Your task to perform on an android device: Open Yahoo.com Image 0: 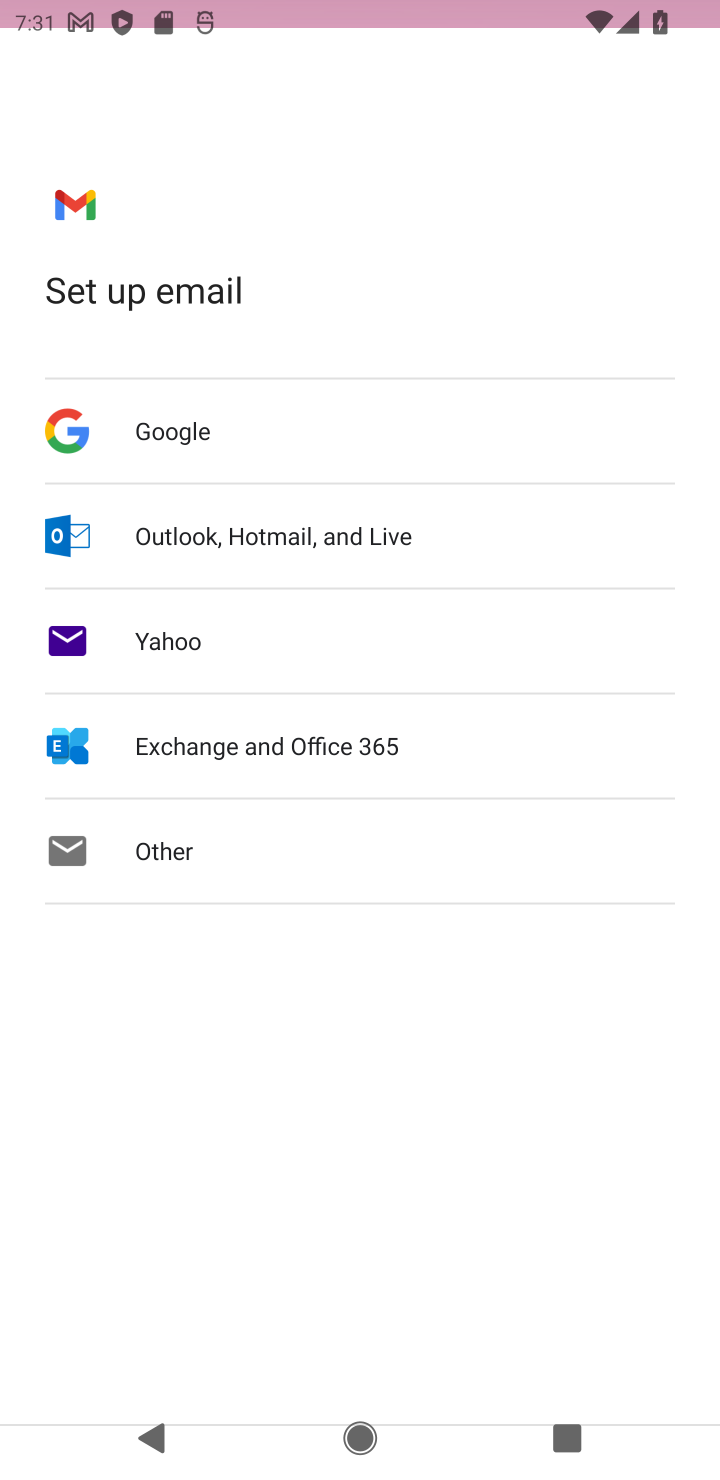
Step 0: press home button
Your task to perform on an android device: Open Yahoo.com Image 1: 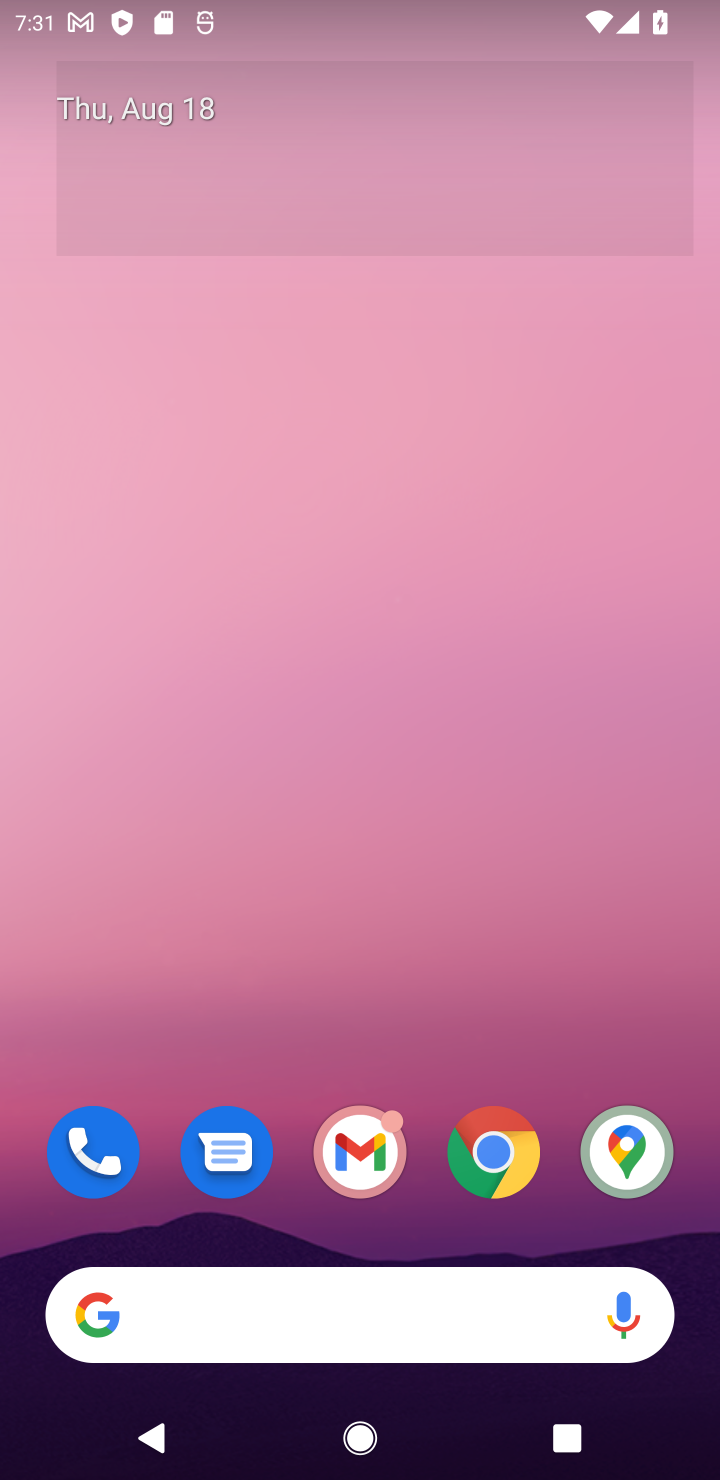
Step 1: click (88, 1303)
Your task to perform on an android device: Open Yahoo.com Image 2: 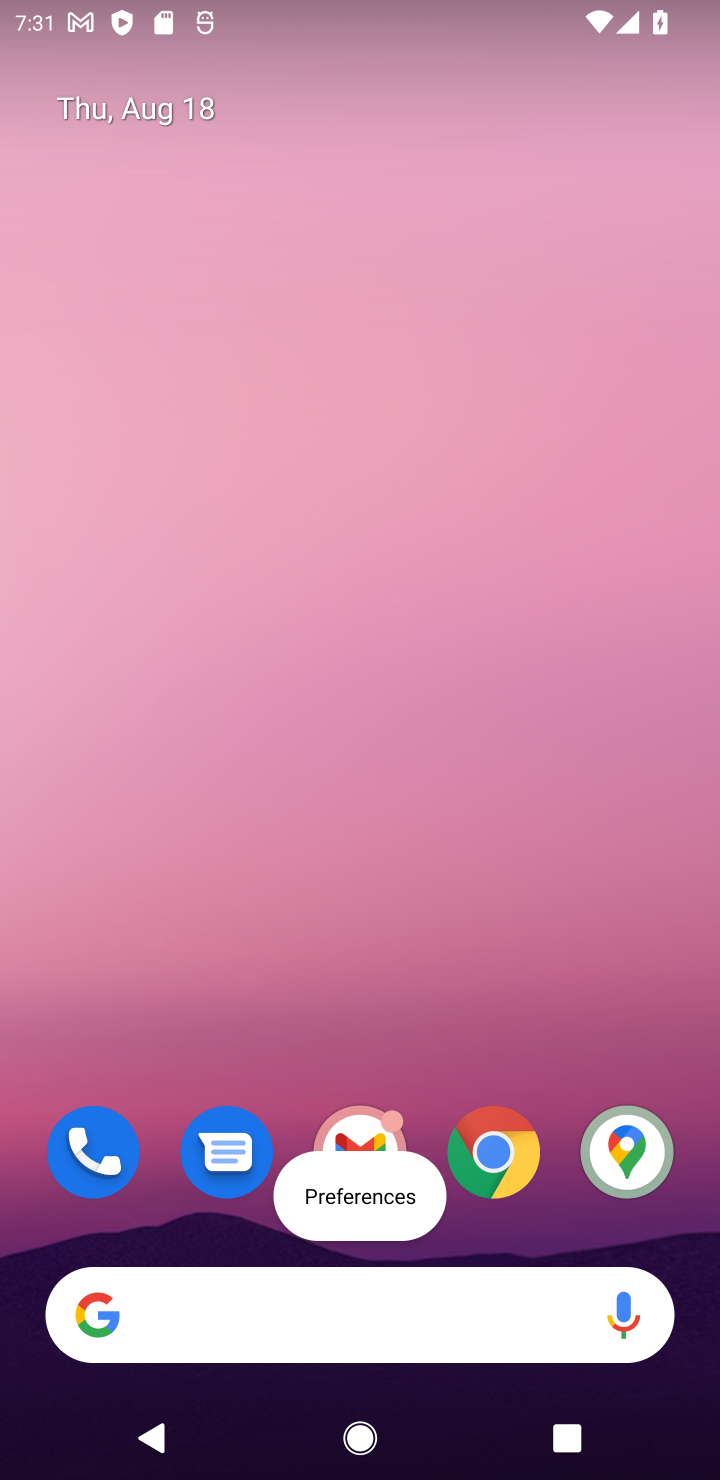
Step 2: click (83, 1314)
Your task to perform on an android device: Open Yahoo.com Image 3: 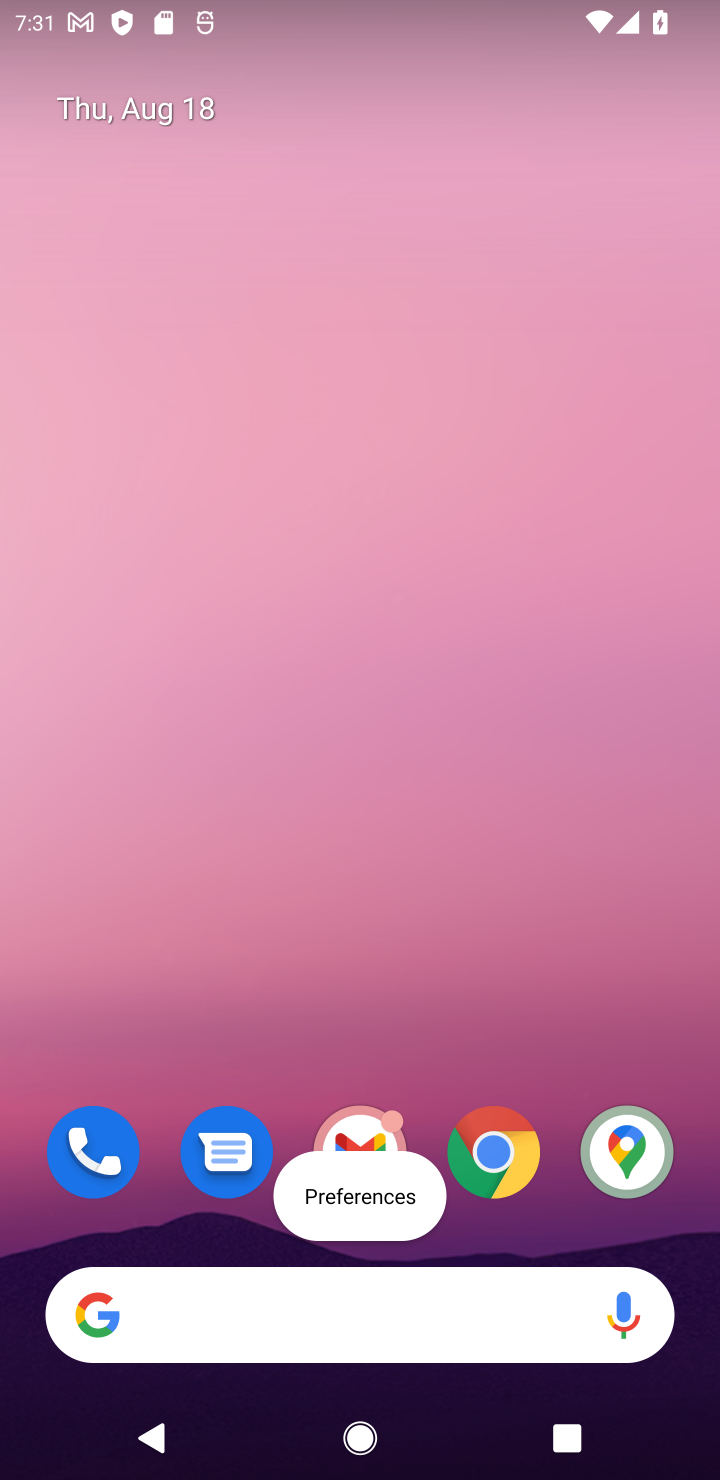
Step 3: click (93, 1319)
Your task to perform on an android device: Open Yahoo.com Image 4: 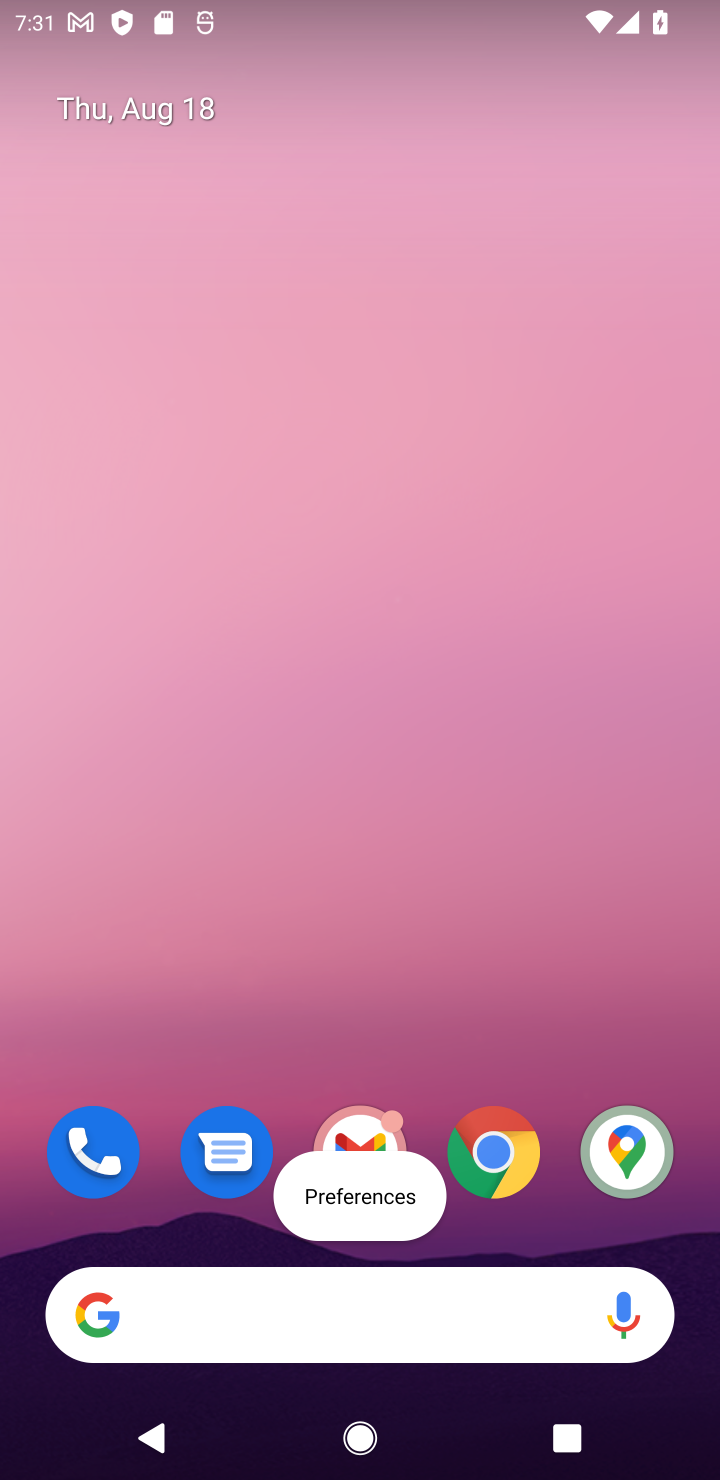
Step 4: click (95, 1322)
Your task to perform on an android device: Open Yahoo.com Image 5: 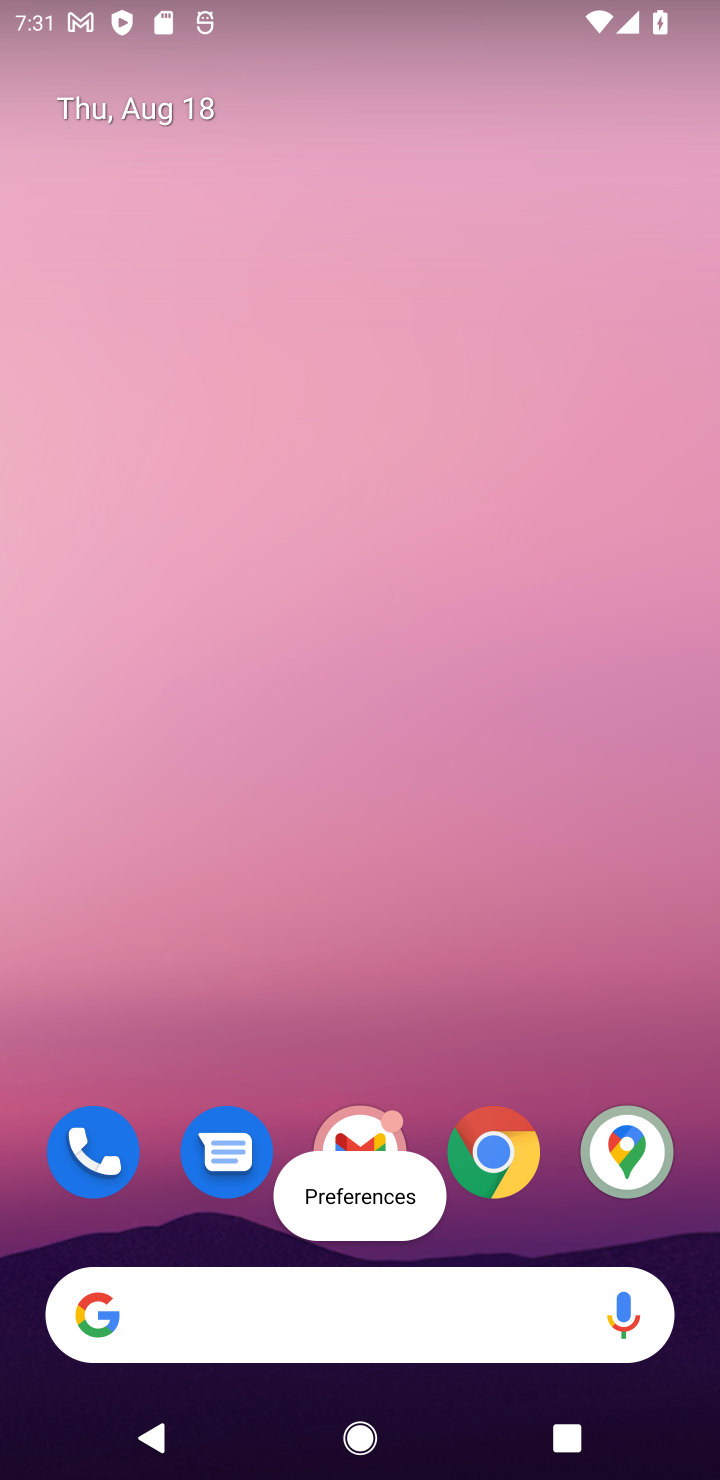
Step 5: click (95, 1321)
Your task to perform on an android device: Open Yahoo.com Image 6: 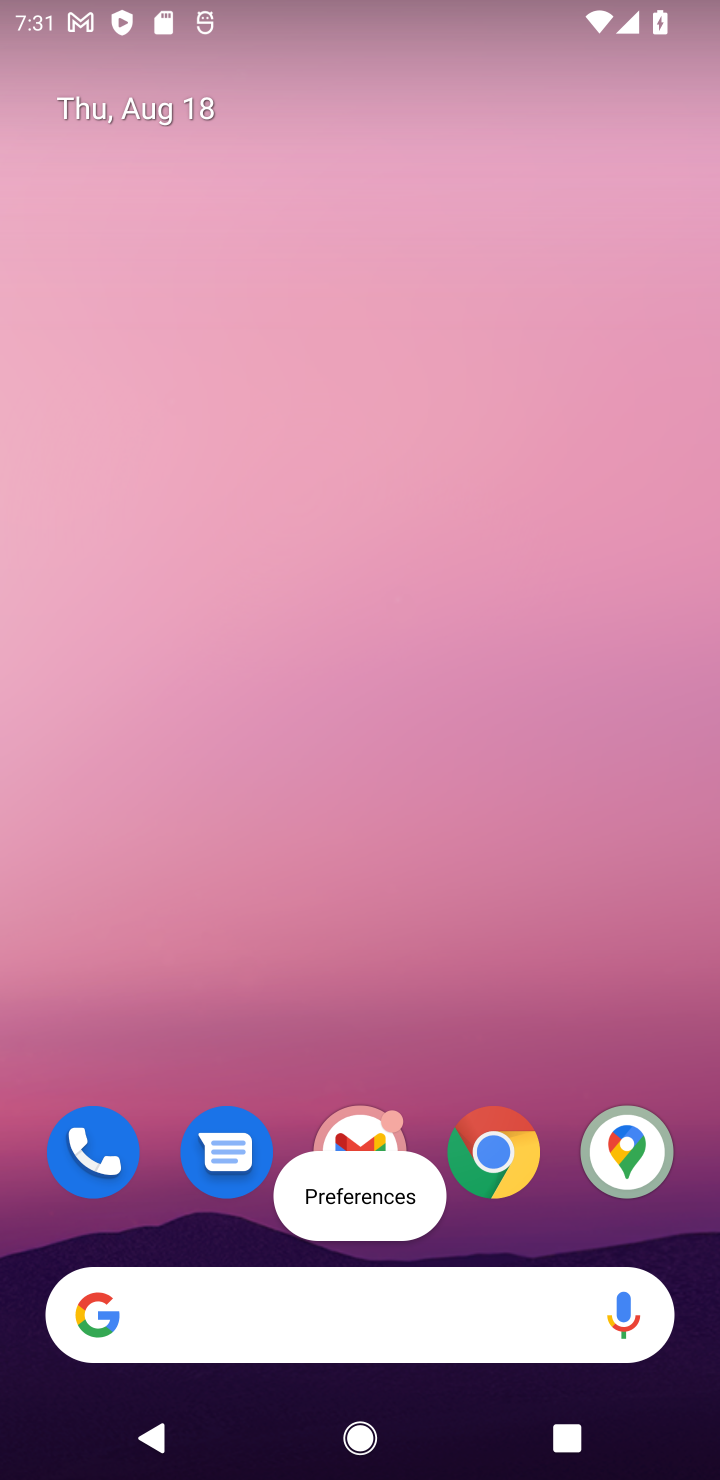
Step 6: click (95, 1316)
Your task to perform on an android device: Open Yahoo.com Image 7: 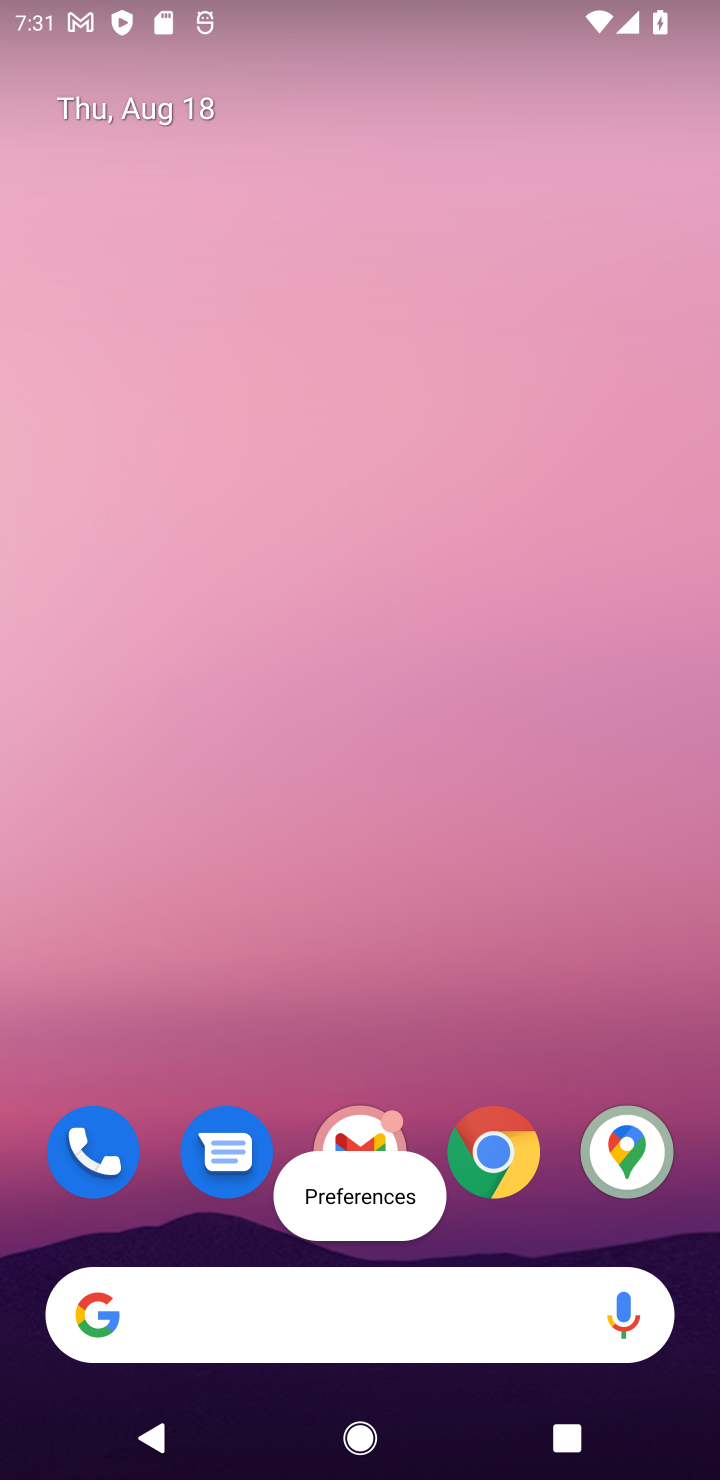
Step 7: click (95, 1316)
Your task to perform on an android device: Open Yahoo.com Image 8: 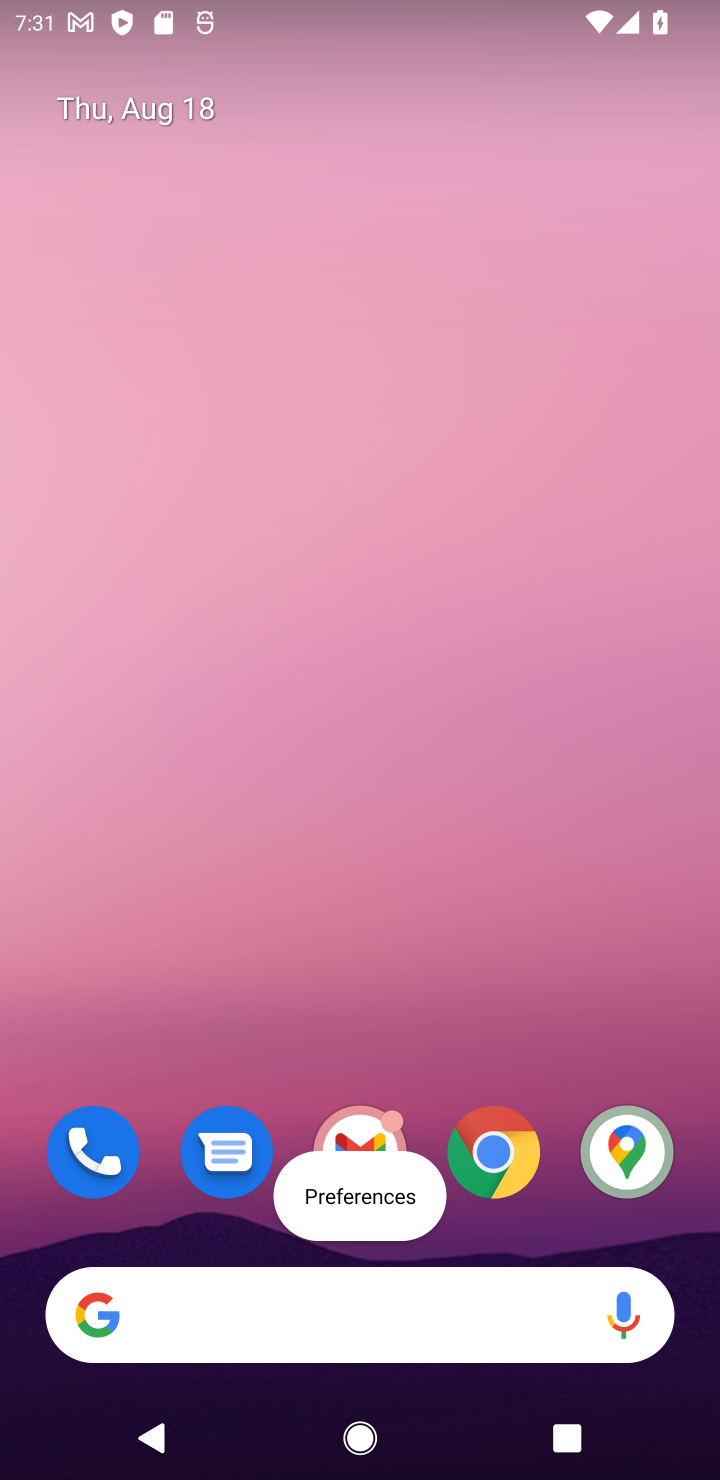
Step 8: click (101, 1316)
Your task to perform on an android device: Open Yahoo.com Image 9: 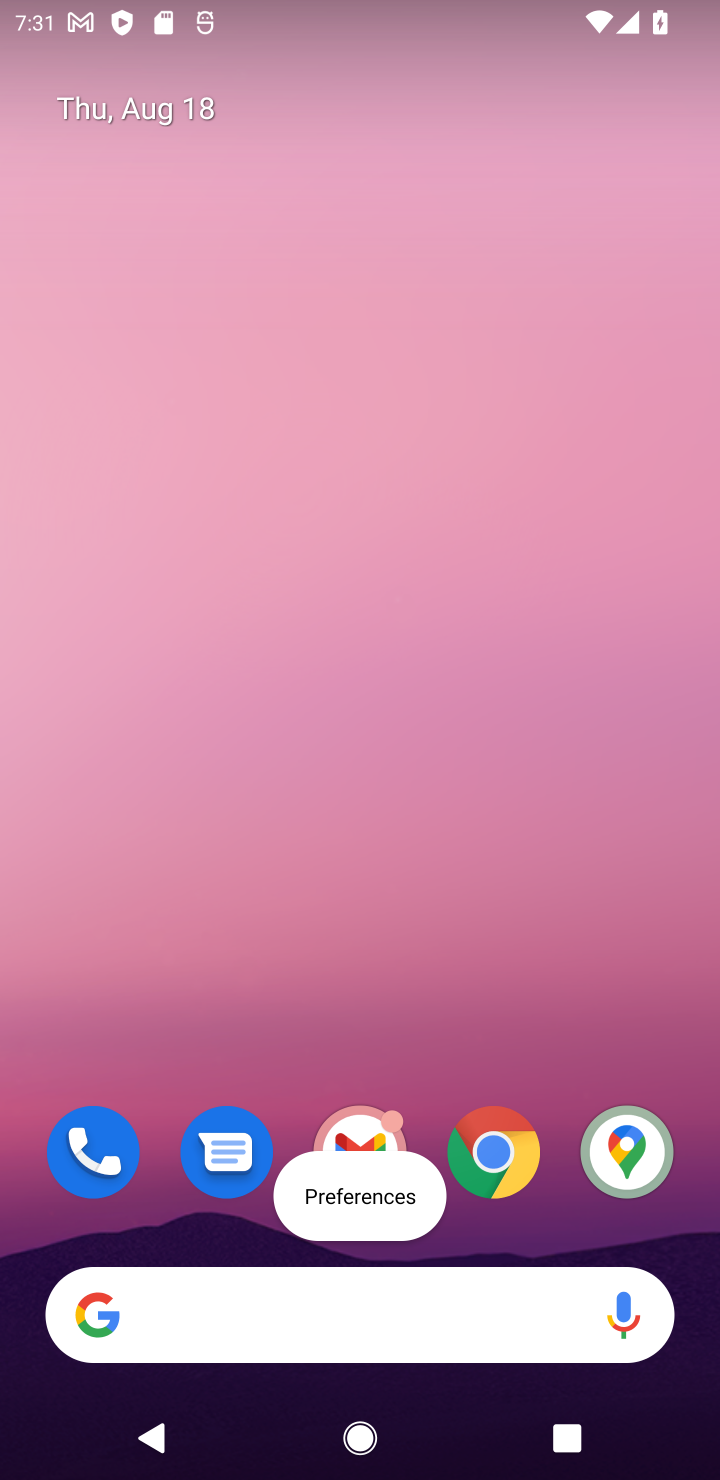
Step 9: click (91, 1322)
Your task to perform on an android device: Open Yahoo.com Image 10: 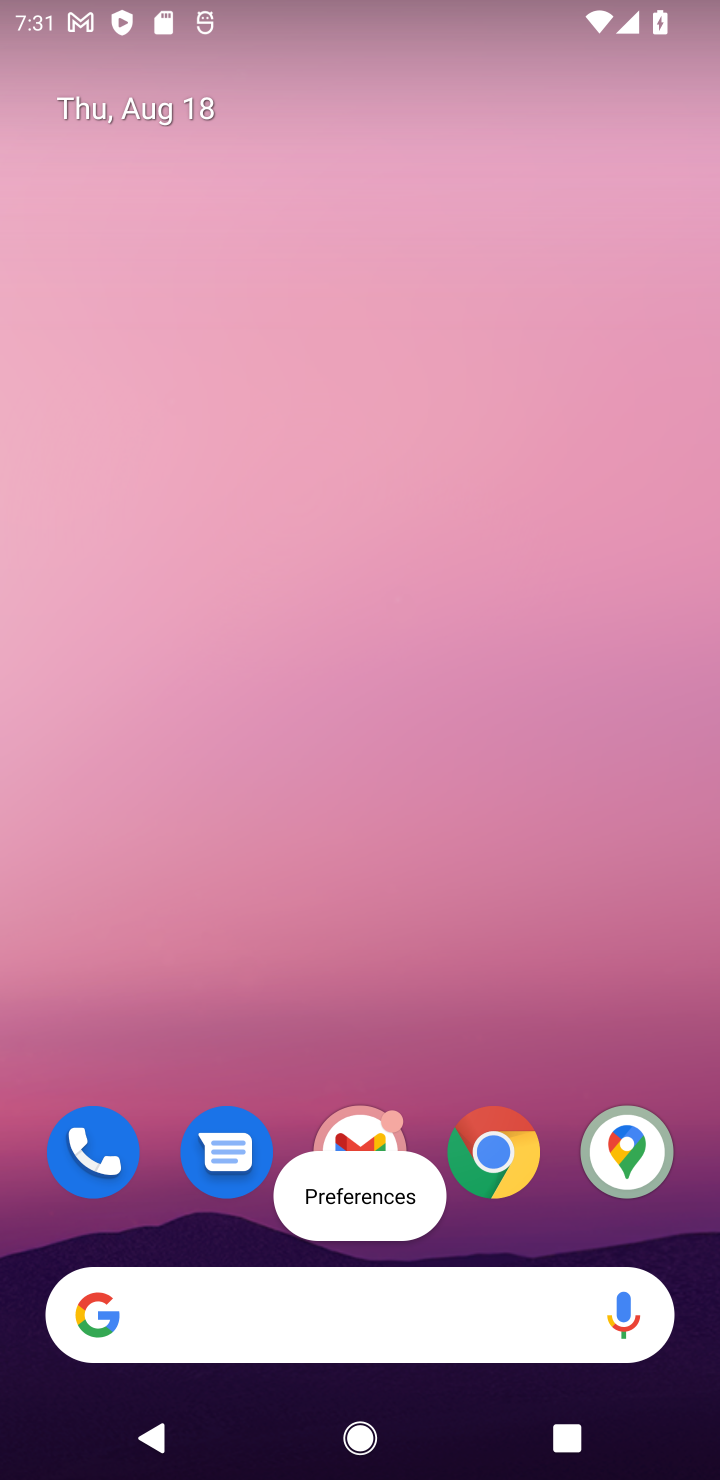
Step 10: click (91, 1322)
Your task to perform on an android device: Open Yahoo.com Image 11: 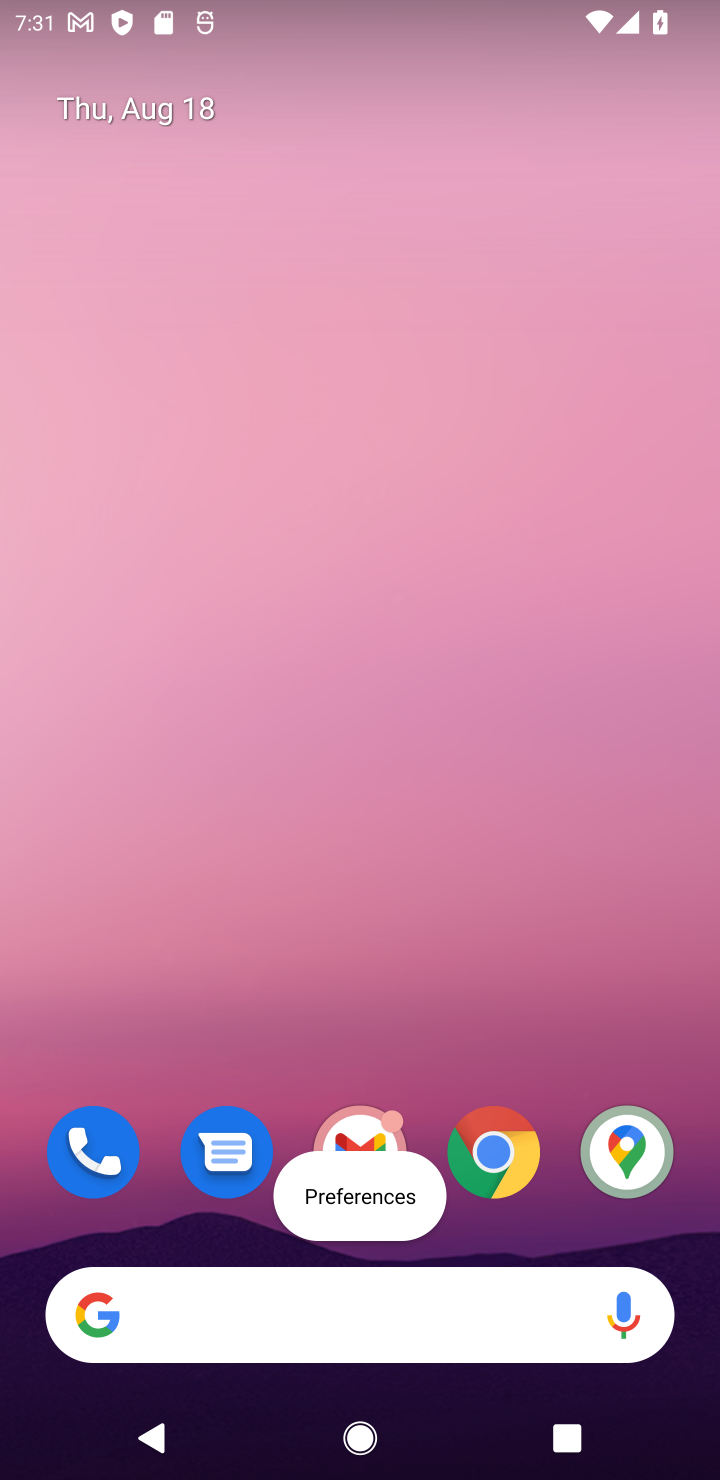
Step 11: click (91, 1322)
Your task to perform on an android device: Open Yahoo.com Image 12: 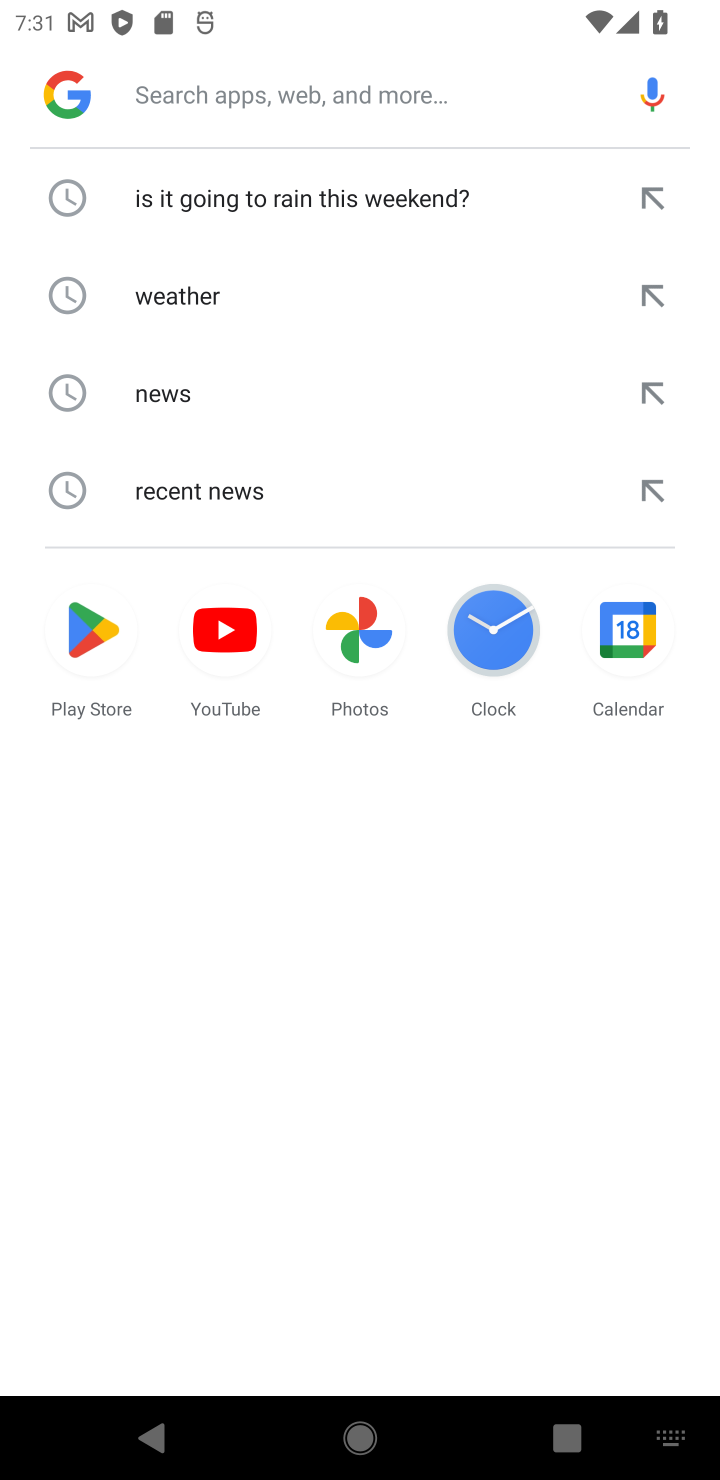
Step 12: type "Yahoo.com"
Your task to perform on an android device: Open Yahoo.com Image 13: 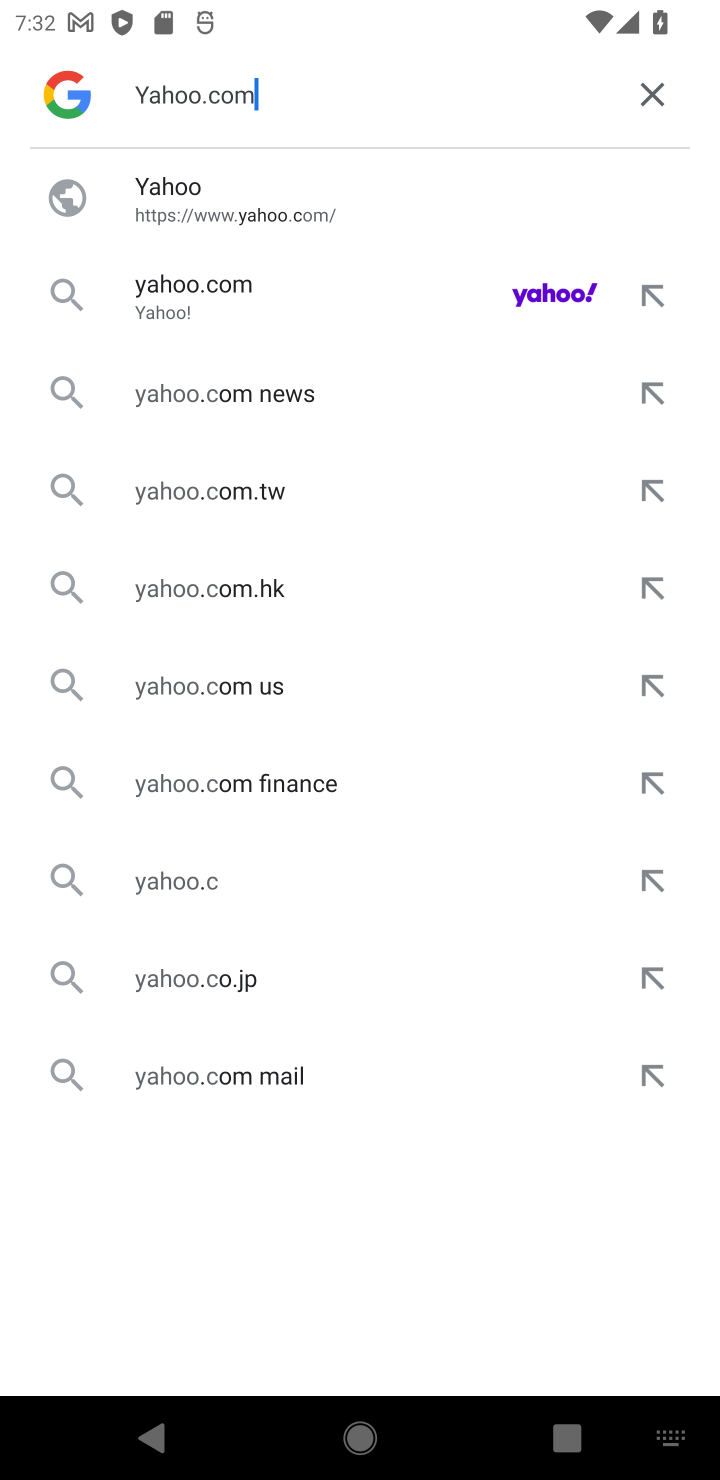
Step 13: press enter
Your task to perform on an android device: Open Yahoo.com Image 14: 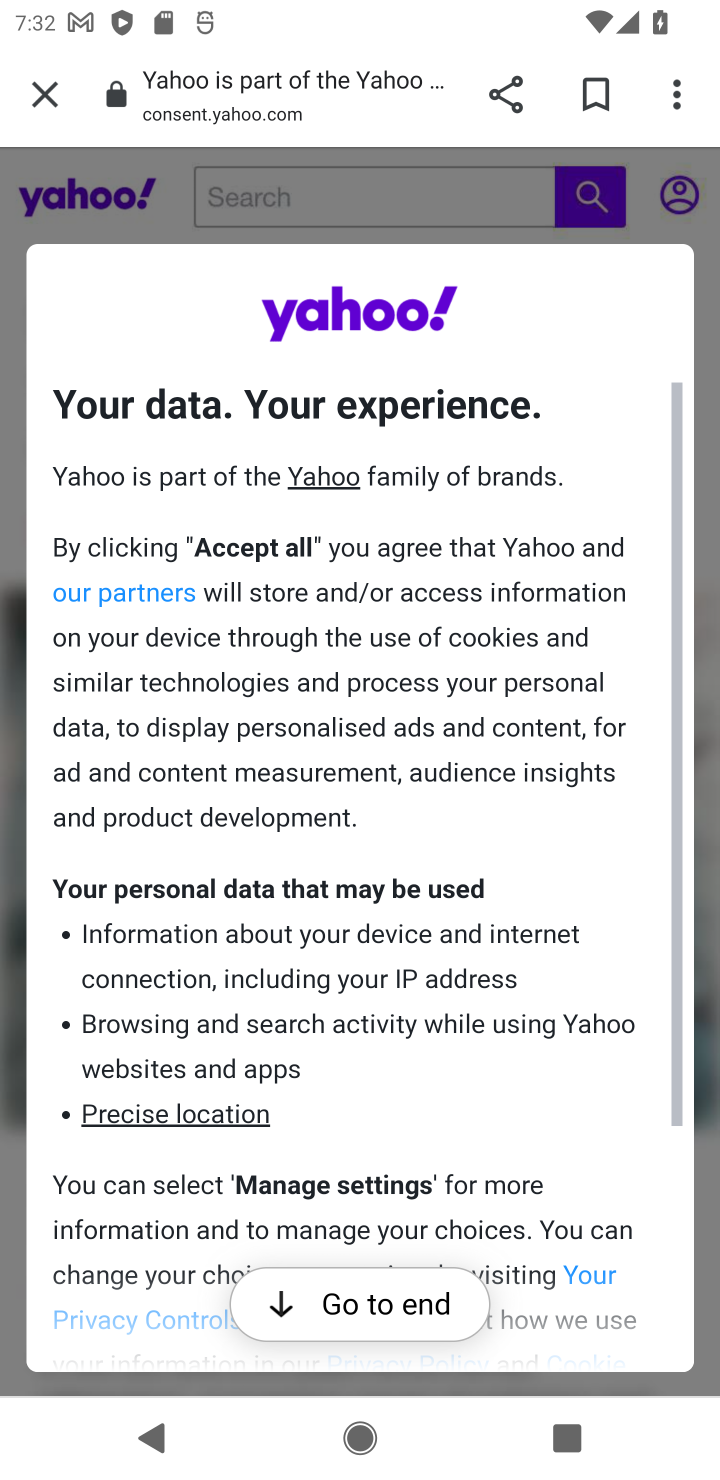
Step 14: click (334, 1315)
Your task to perform on an android device: Open Yahoo.com Image 15: 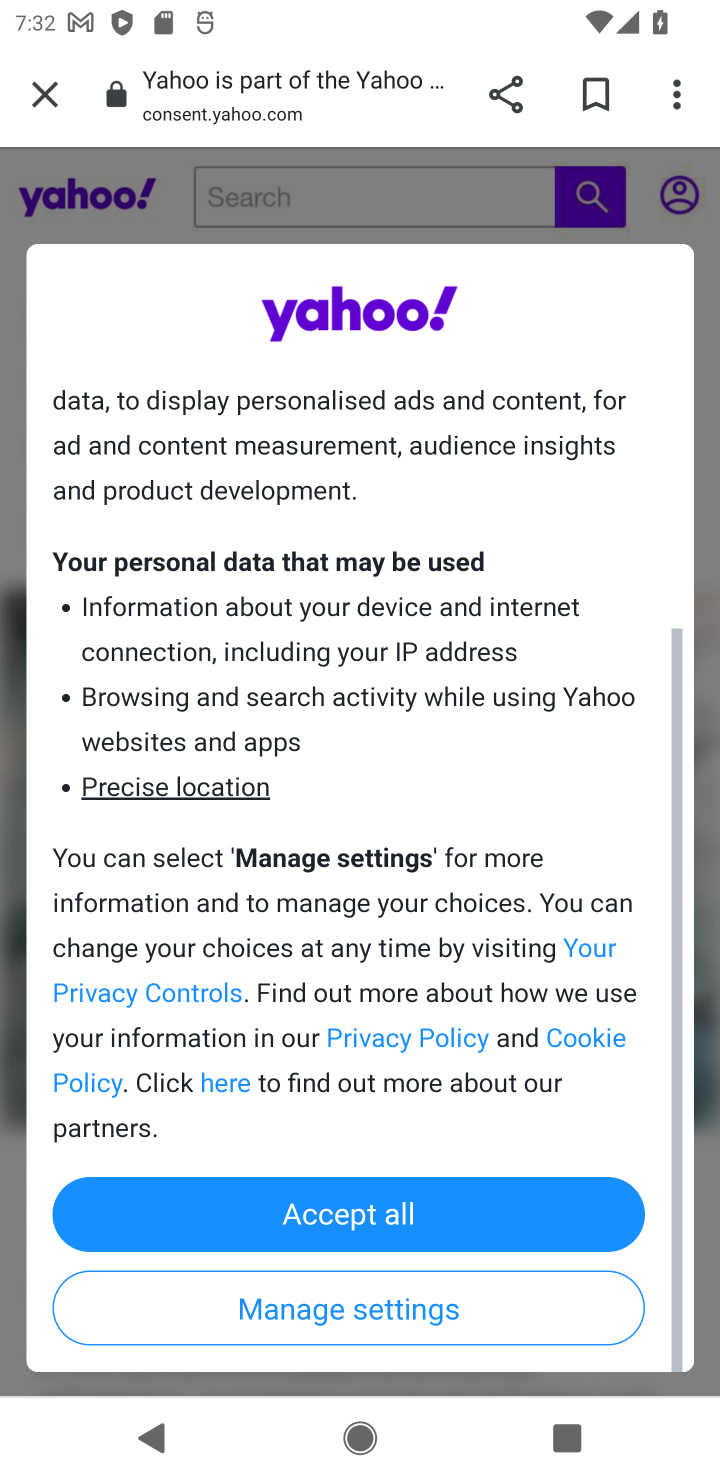
Step 15: click (425, 1238)
Your task to perform on an android device: Open Yahoo.com Image 16: 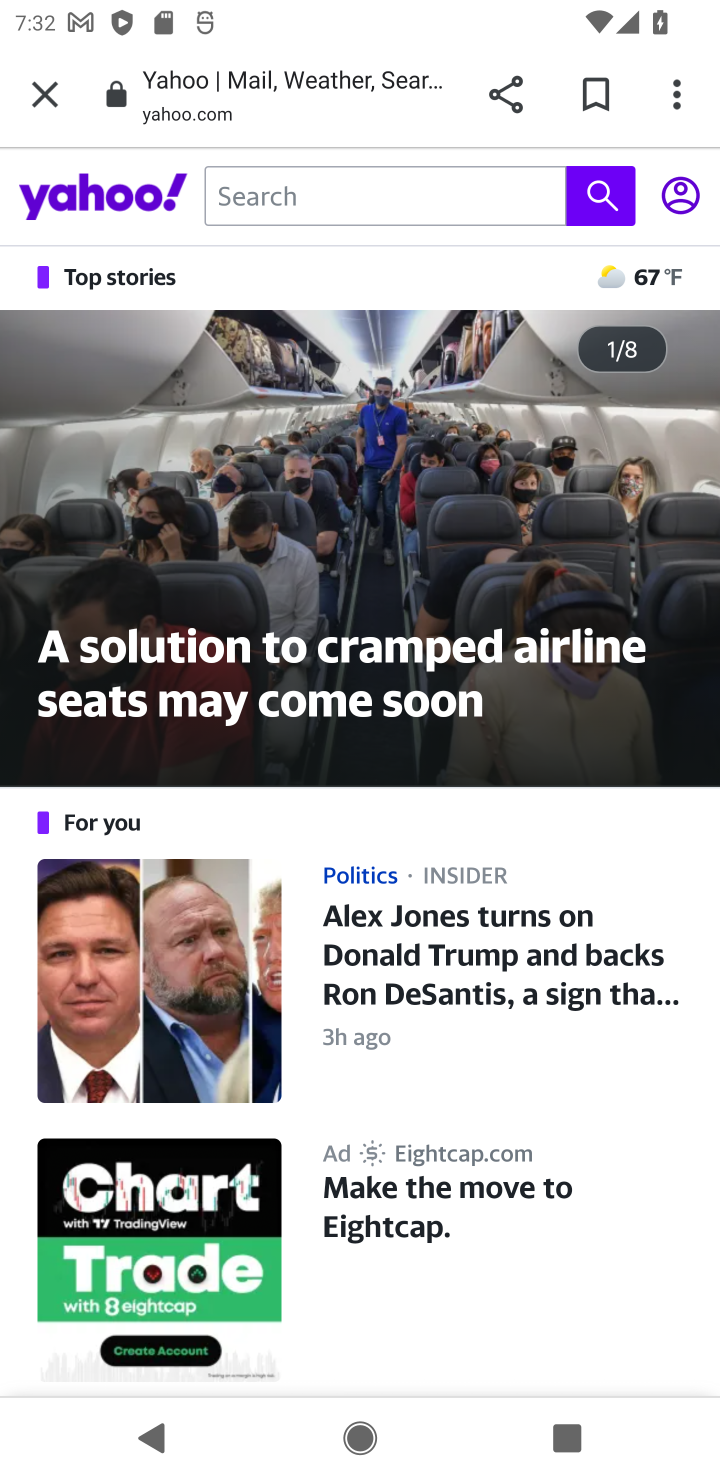
Step 16: task complete